Your task to perform on an android device: turn pop-ups on in chrome Image 0: 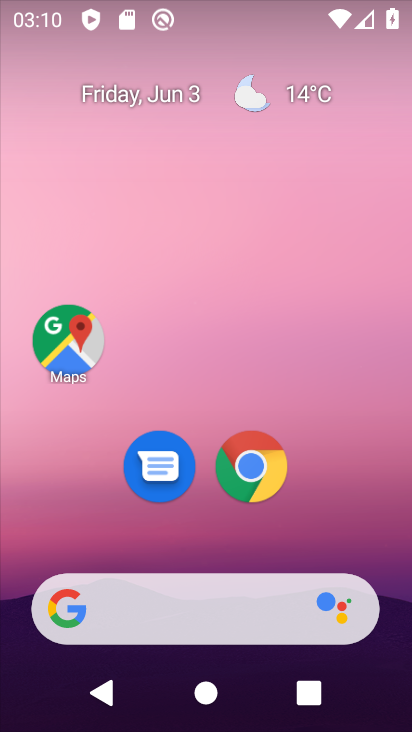
Step 0: click (247, 459)
Your task to perform on an android device: turn pop-ups on in chrome Image 1: 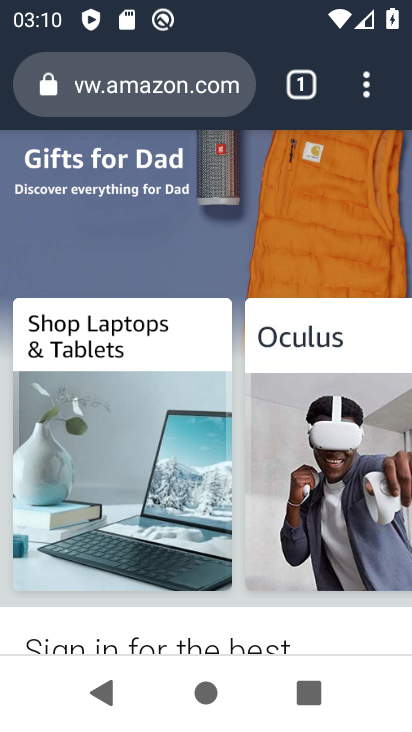
Step 1: click (365, 74)
Your task to perform on an android device: turn pop-ups on in chrome Image 2: 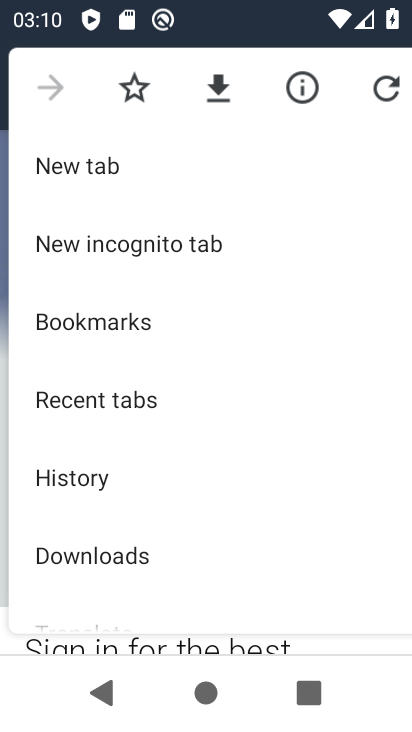
Step 2: drag from (194, 562) to (236, 127)
Your task to perform on an android device: turn pop-ups on in chrome Image 3: 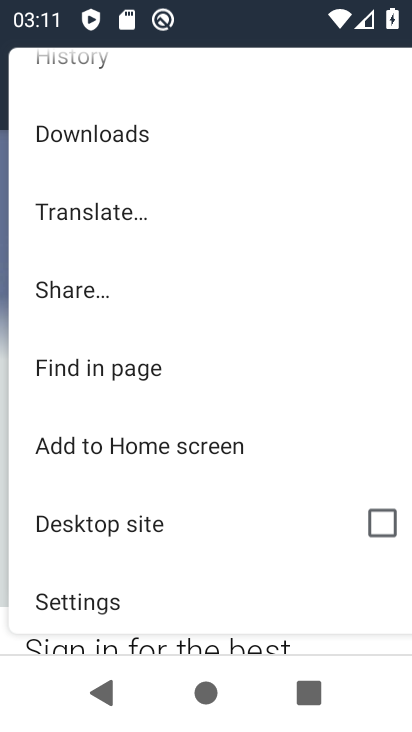
Step 3: click (142, 599)
Your task to perform on an android device: turn pop-ups on in chrome Image 4: 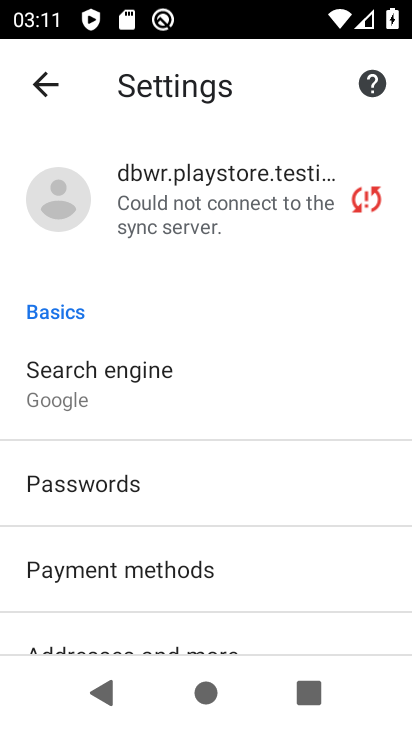
Step 4: drag from (259, 632) to (268, 163)
Your task to perform on an android device: turn pop-ups on in chrome Image 5: 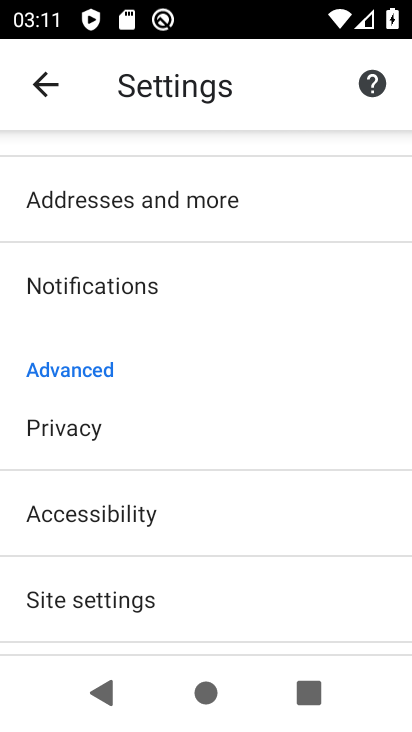
Step 5: click (174, 590)
Your task to perform on an android device: turn pop-ups on in chrome Image 6: 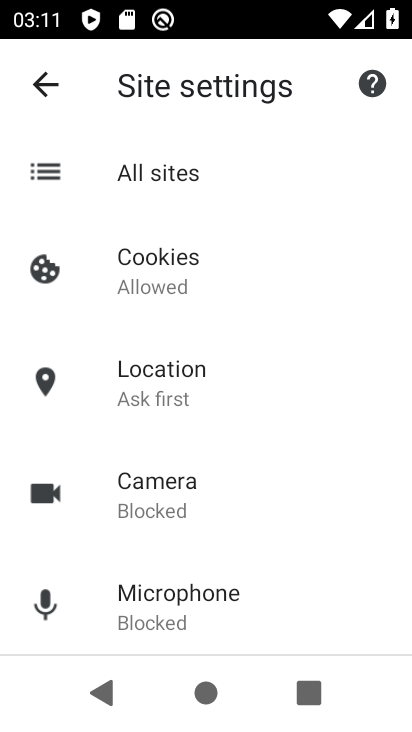
Step 6: drag from (240, 612) to (297, 239)
Your task to perform on an android device: turn pop-ups on in chrome Image 7: 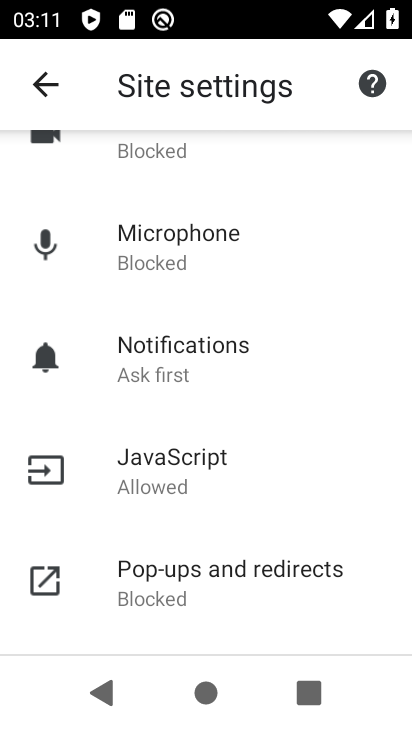
Step 7: click (230, 593)
Your task to perform on an android device: turn pop-ups on in chrome Image 8: 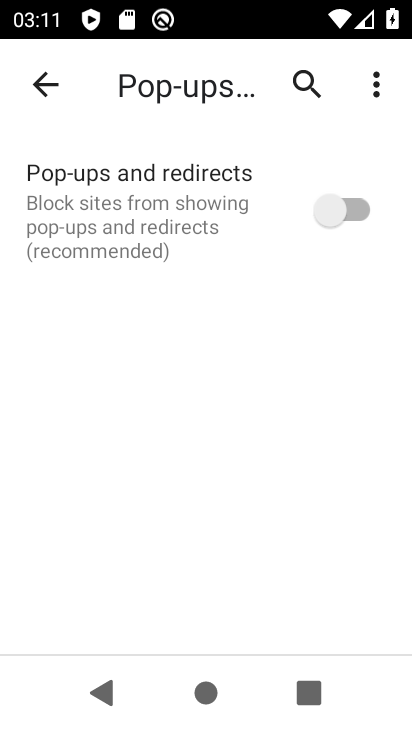
Step 8: click (349, 213)
Your task to perform on an android device: turn pop-ups on in chrome Image 9: 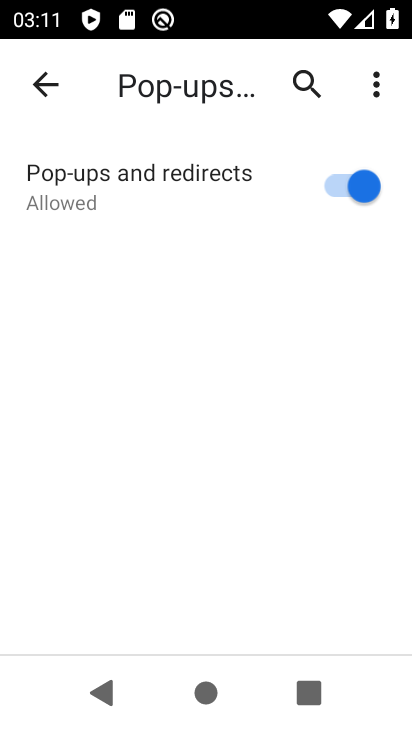
Step 9: task complete